Your task to perform on an android device: open app "Microsoft Excel" (install if not already installed) Image 0: 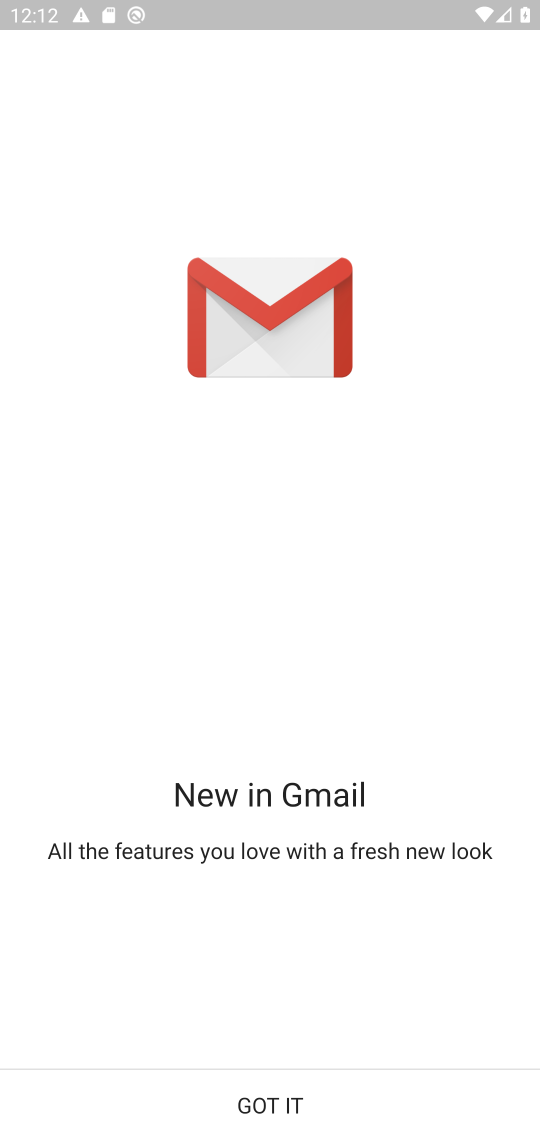
Step 0: press home button
Your task to perform on an android device: open app "Microsoft Excel" (install if not already installed) Image 1: 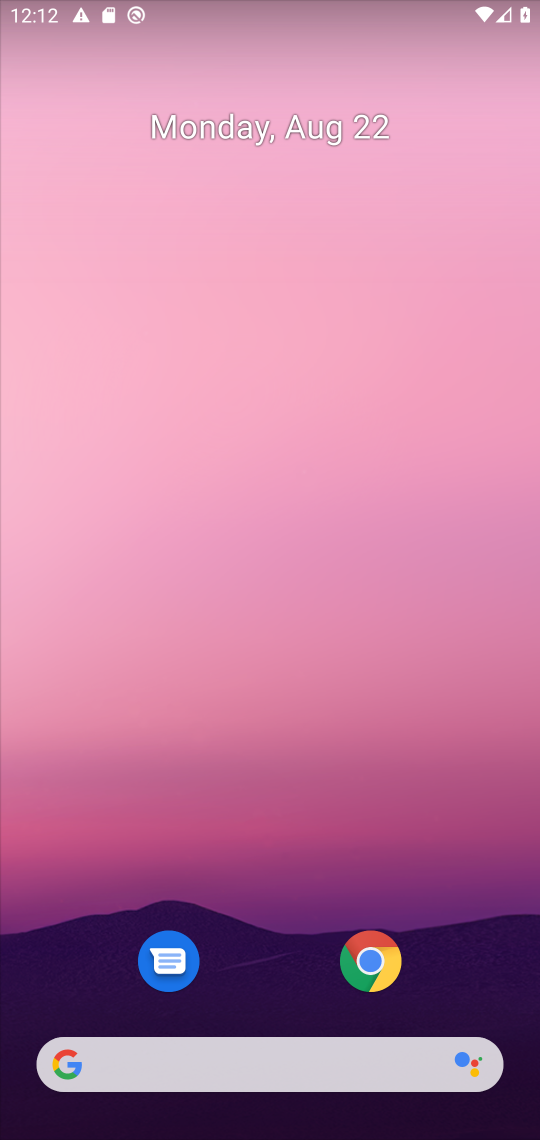
Step 1: drag from (462, 950) to (428, 207)
Your task to perform on an android device: open app "Microsoft Excel" (install if not already installed) Image 2: 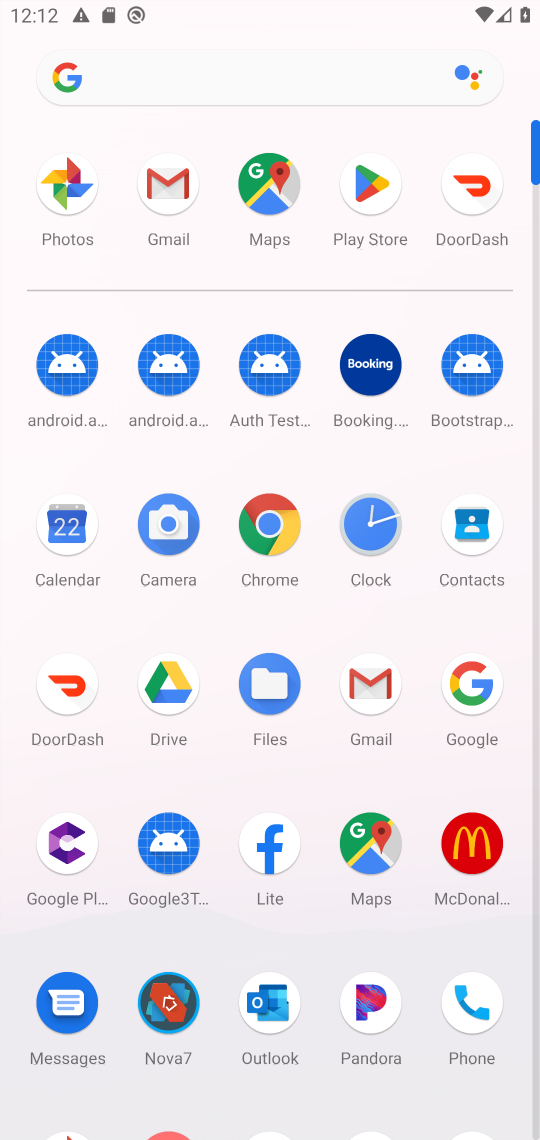
Step 2: click (376, 173)
Your task to perform on an android device: open app "Microsoft Excel" (install if not already installed) Image 3: 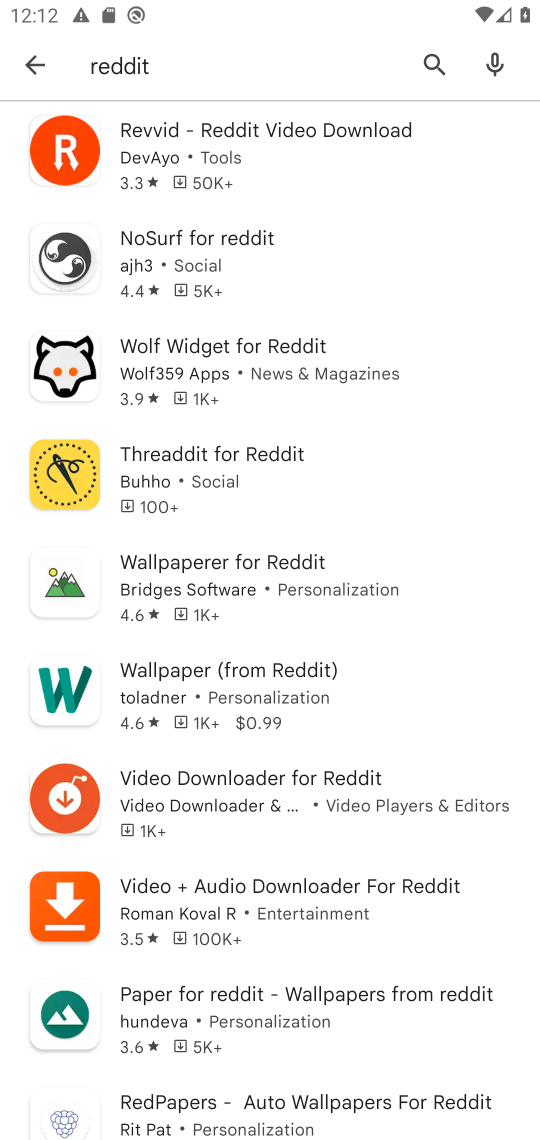
Step 3: press back button
Your task to perform on an android device: open app "Microsoft Excel" (install if not already installed) Image 4: 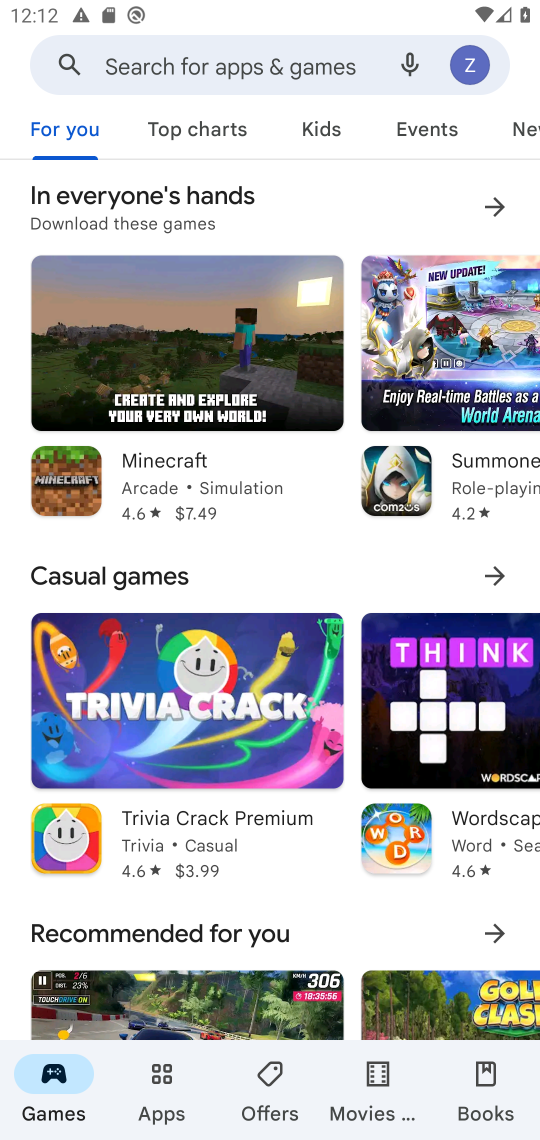
Step 4: click (165, 67)
Your task to perform on an android device: open app "Microsoft Excel" (install if not already installed) Image 5: 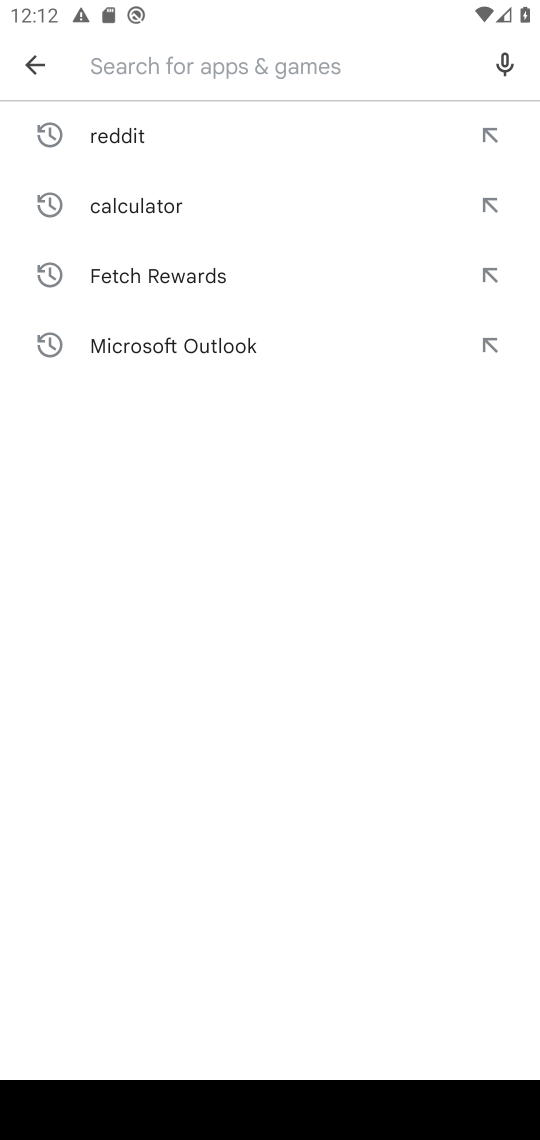
Step 5: type "Microsoft Excel"
Your task to perform on an android device: open app "Microsoft Excel" (install if not already installed) Image 6: 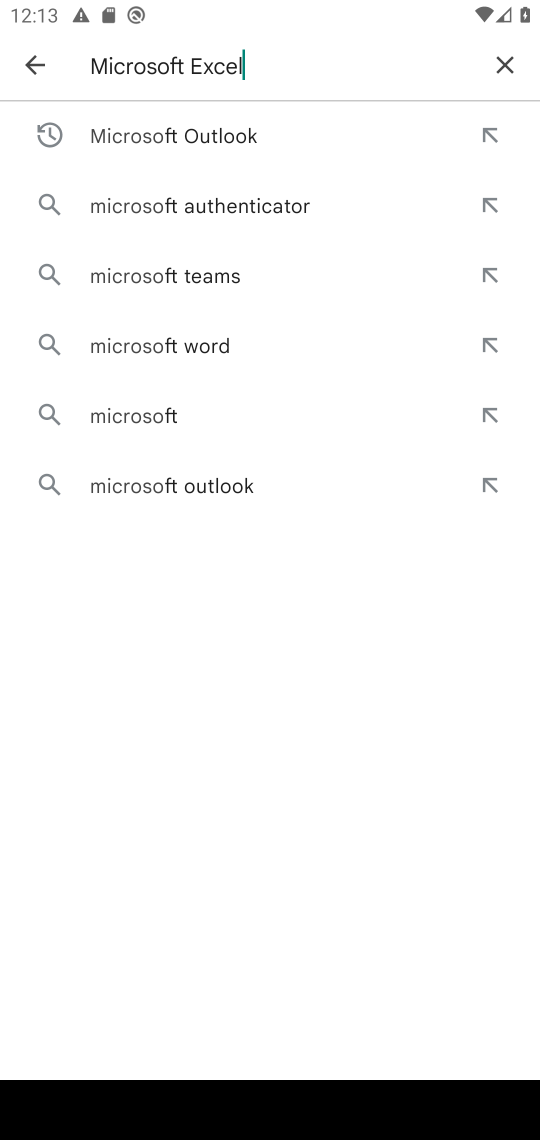
Step 6: press enter
Your task to perform on an android device: open app "Microsoft Excel" (install if not already installed) Image 7: 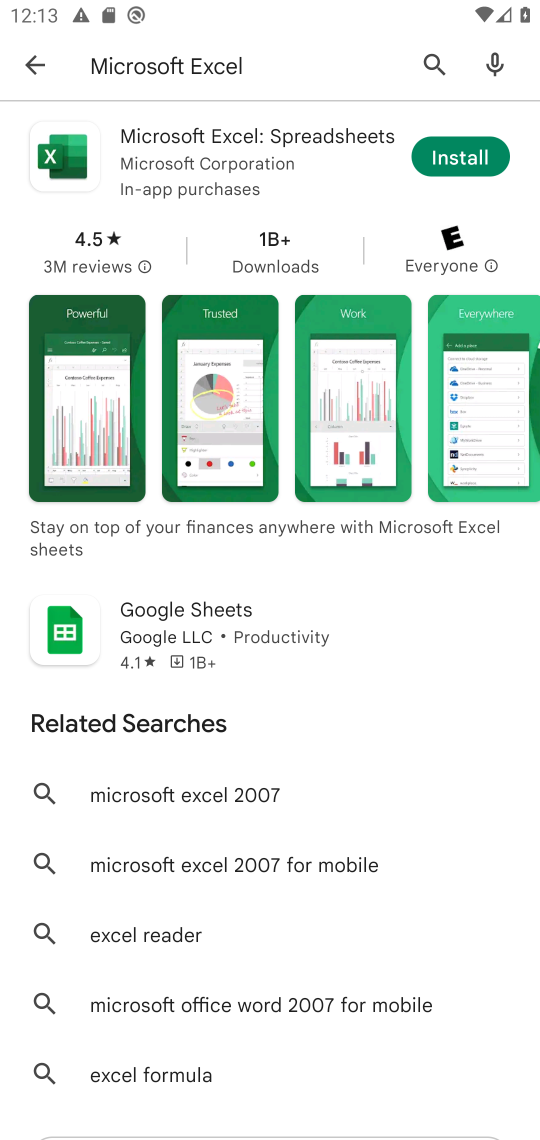
Step 7: click (456, 151)
Your task to perform on an android device: open app "Microsoft Excel" (install if not already installed) Image 8: 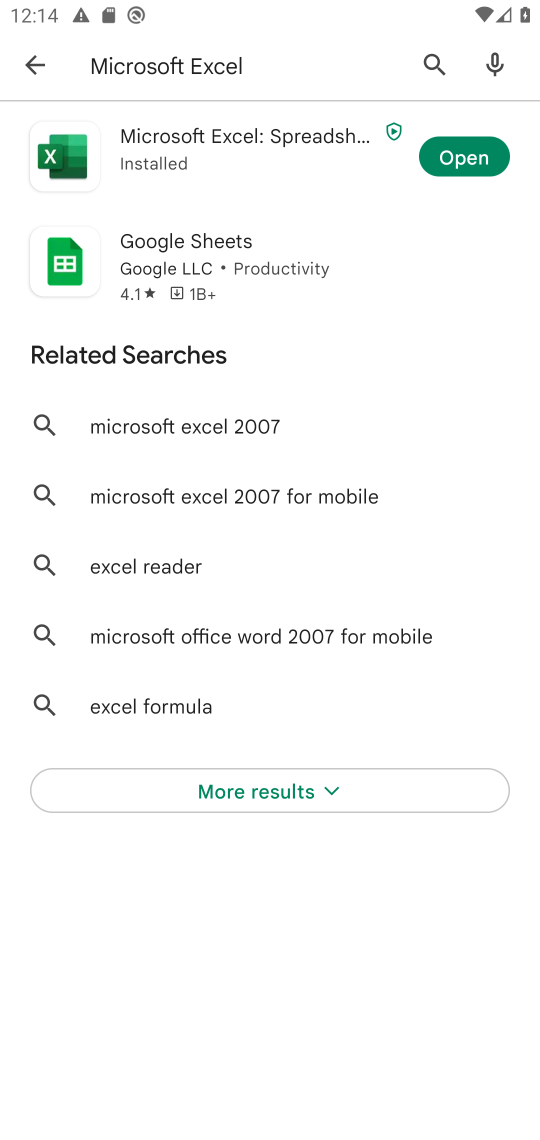
Step 8: click (454, 160)
Your task to perform on an android device: open app "Microsoft Excel" (install if not already installed) Image 9: 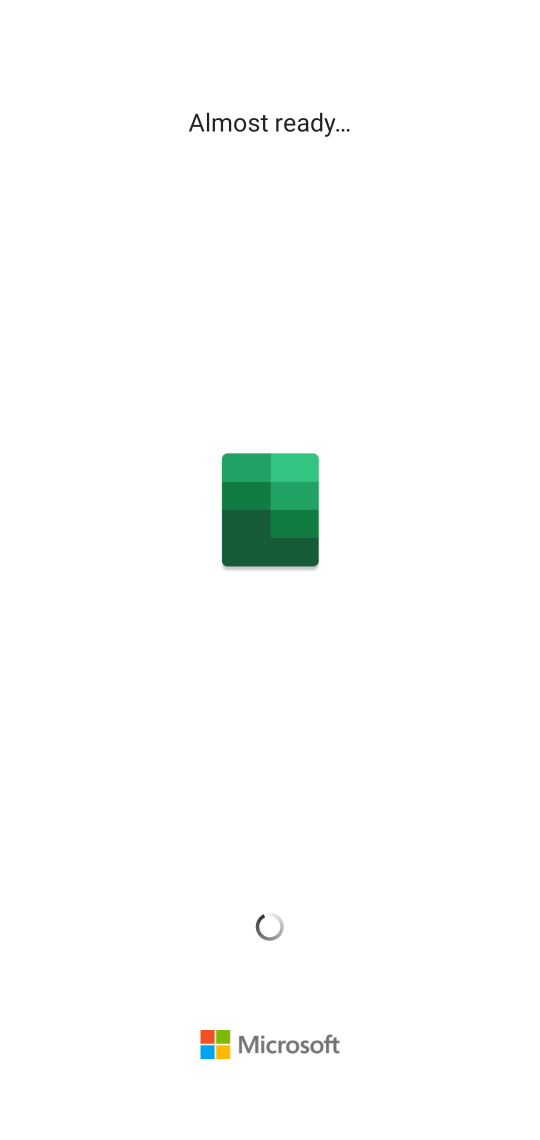
Step 9: task complete